Your task to perform on an android device: Open Maps and search for coffee Image 0: 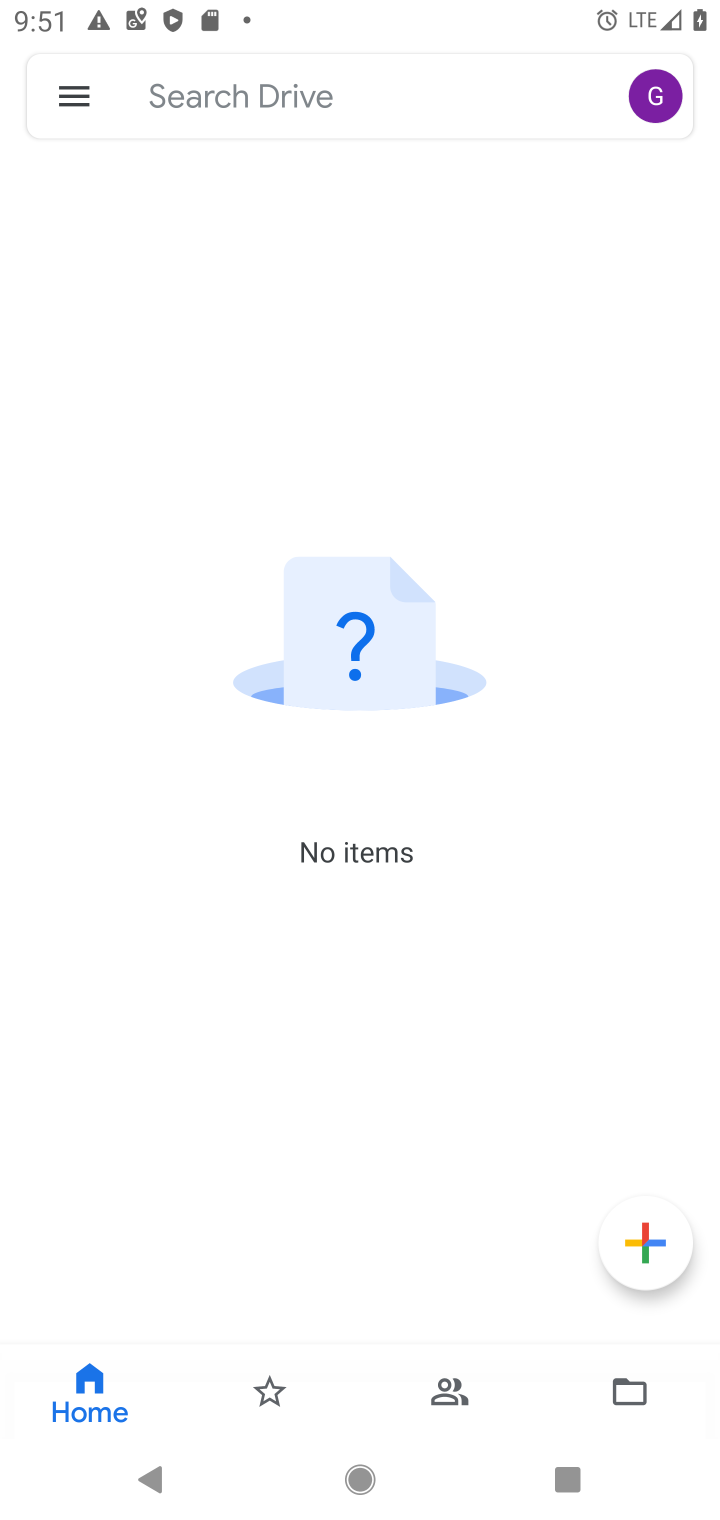
Step 0: press home button
Your task to perform on an android device: Open Maps and search for coffee Image 1: 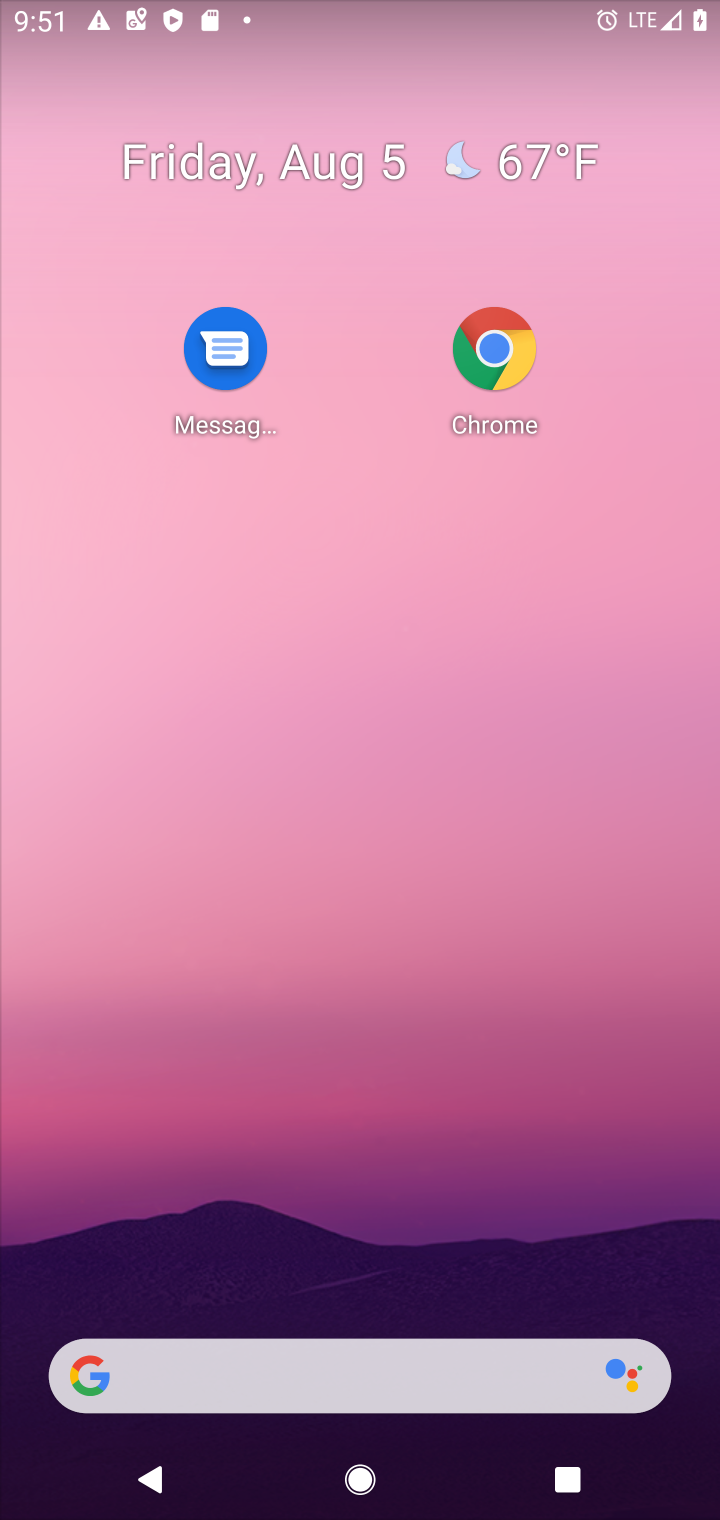
Step 1: drag from (347, 1438) to (235, 402)
Your task to perform on an android device: Open Maps and search for coffee Image 2: 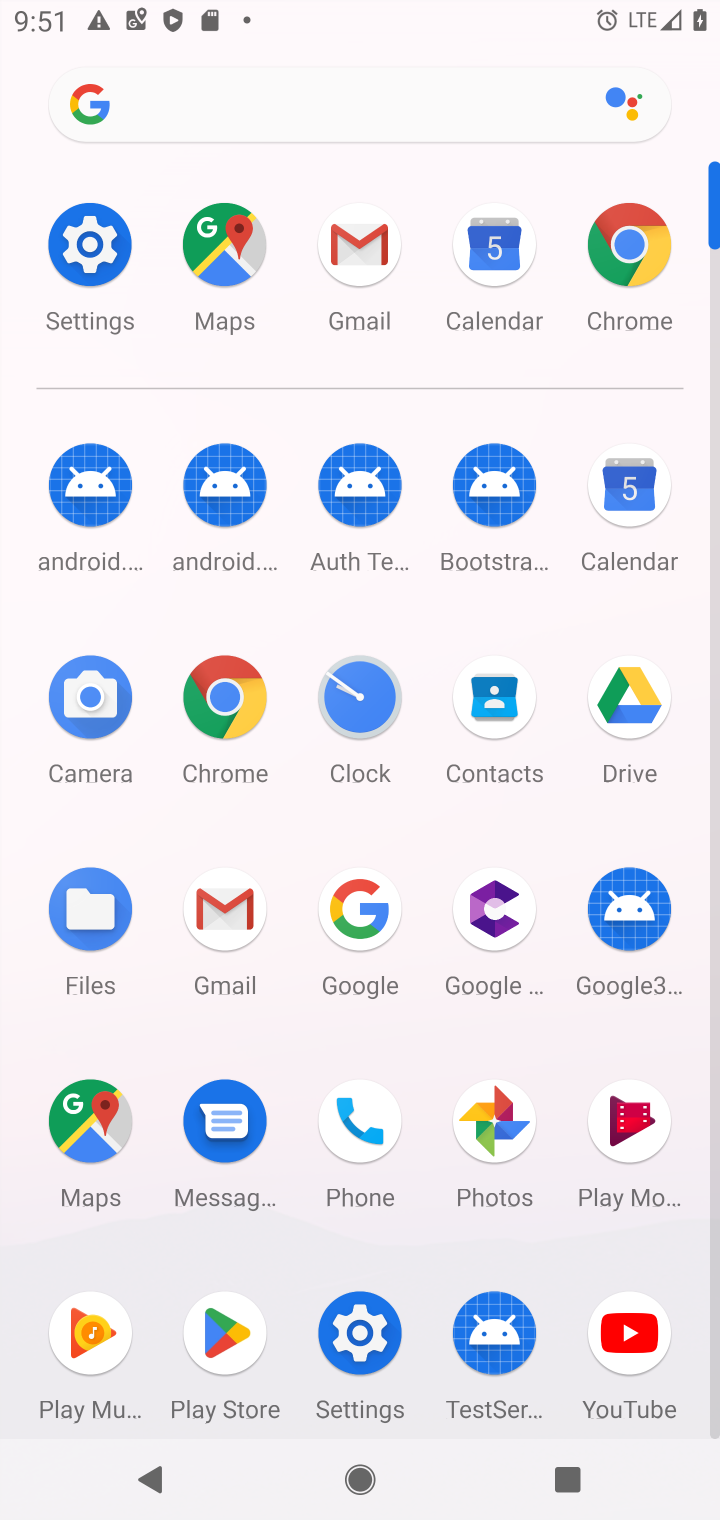
Step 2: click (236, 264)
Your task to perform on an android device: Open Maps and search for coffee Image 3: 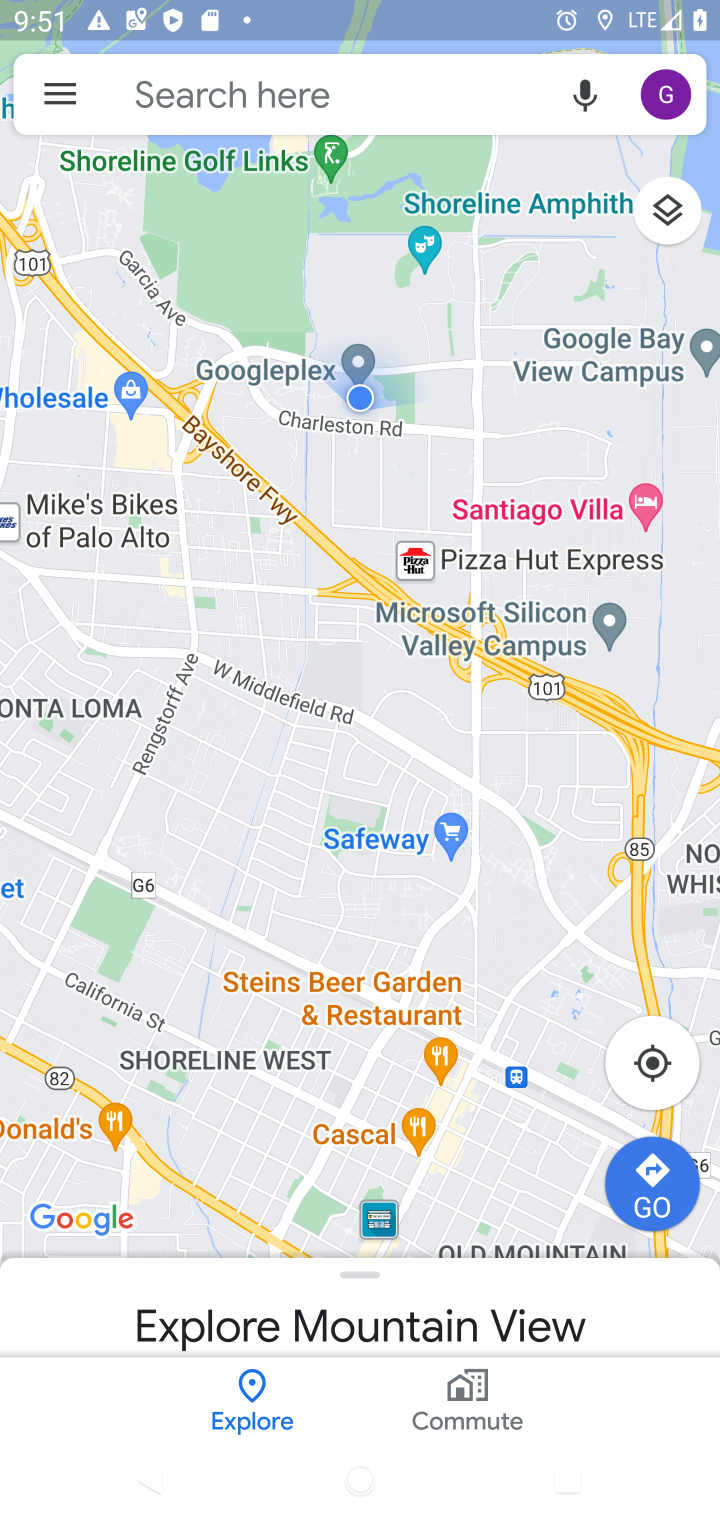
Step 3: click (267, 85)
Your task to perform on an android device: Open Maps and search for coffee Image 4: 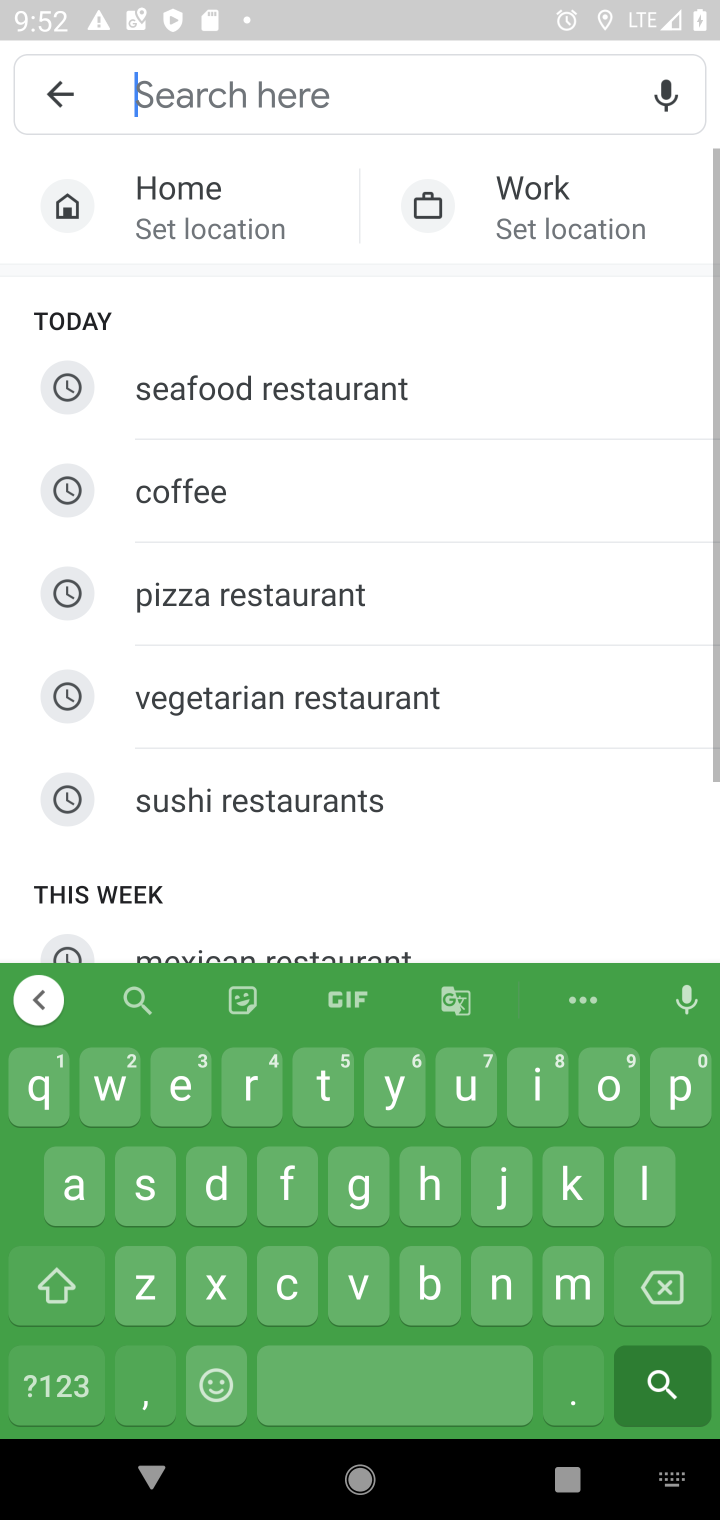
Step 4: click (202, 485)
Your task to perform on an android device: Open Maps and search for coffee Image 5: 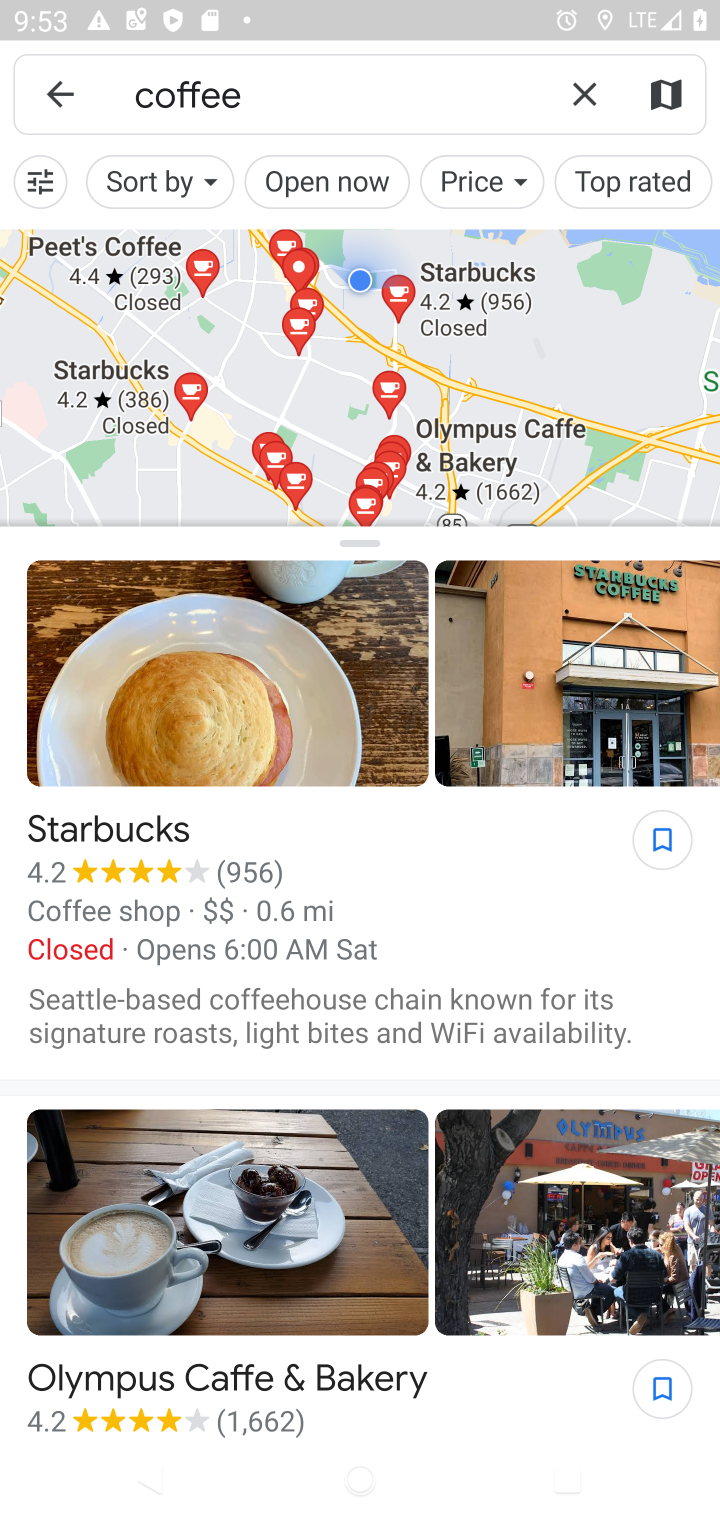
Step 5: task complete